Your task to perform on an android device: turn off translation in the chrome app Image 0: 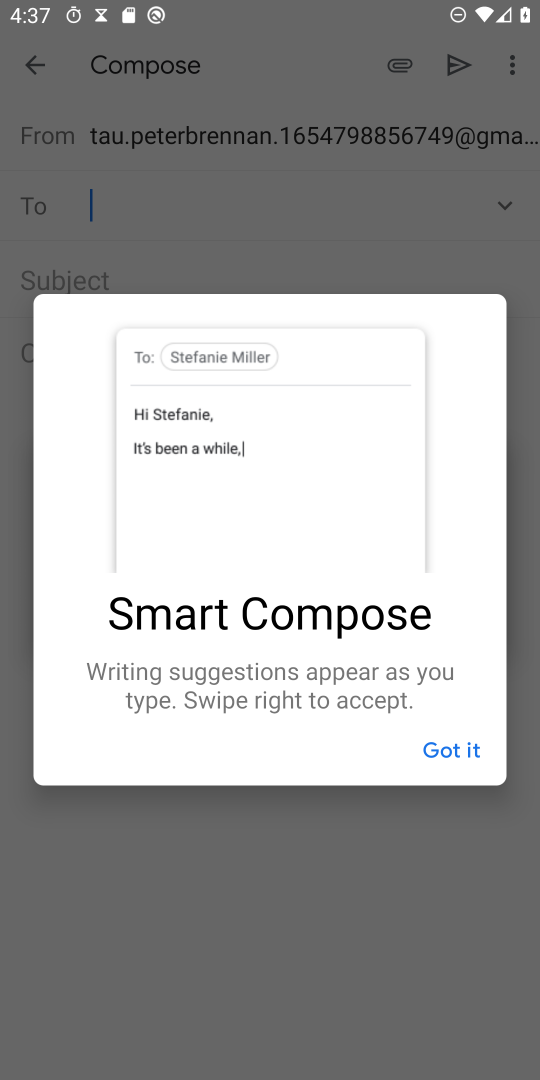
Step 0: press home button
Your task to perform on an android device: turn off translation in the chrome app Image 1: 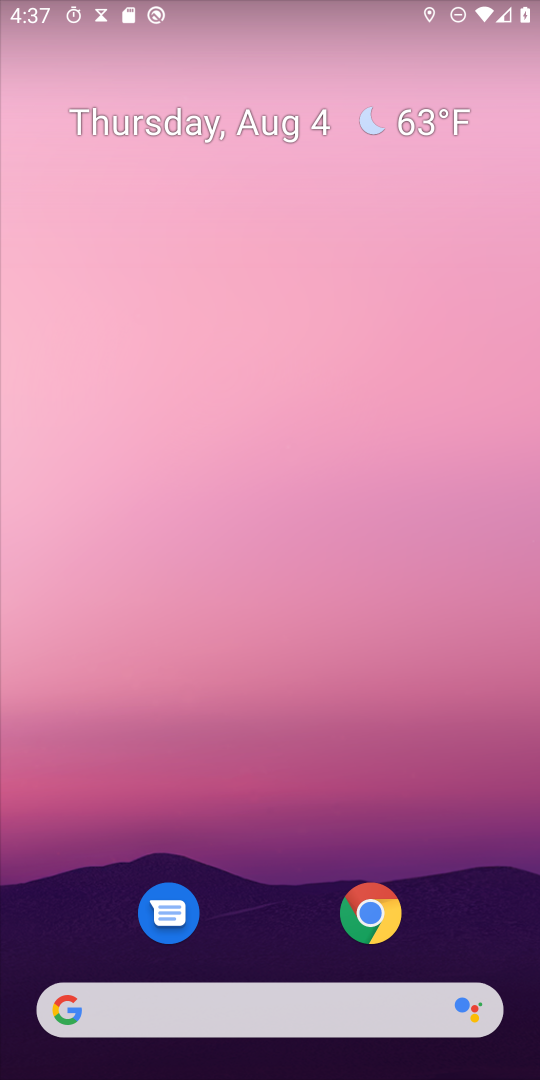
Step 1: drag from (277, 1007) to (531, 7)
Your task to perform on an android device: turn off translation in the chrome app Image 2: 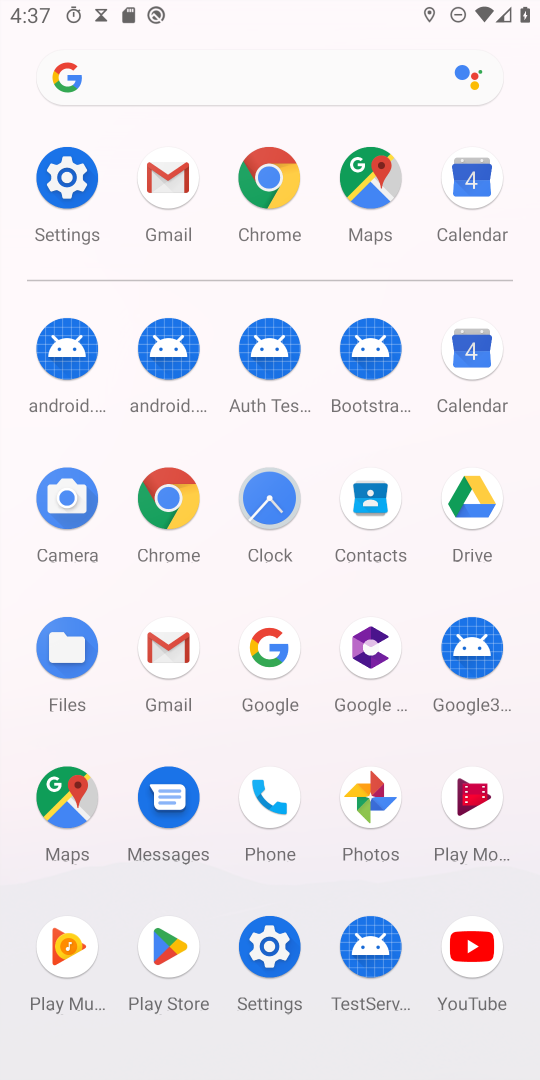
Step 2: click (173, 500)
Your task to perform on an android device: turn off translation in the chrome app Image 3: 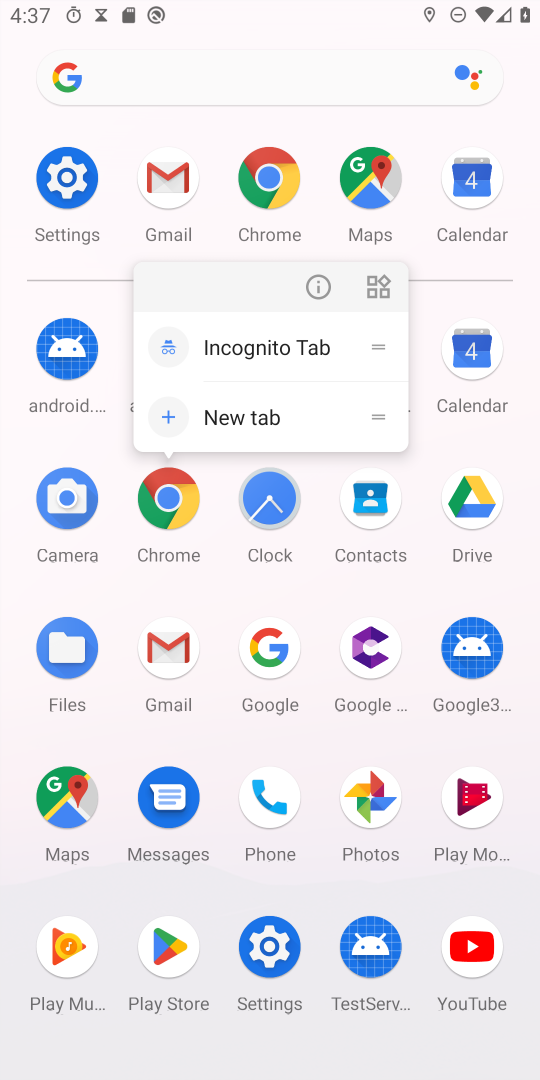
Step 3: click (170, 512)
Your task to perform on an android device: turn off translation in the chrome app Image 4: 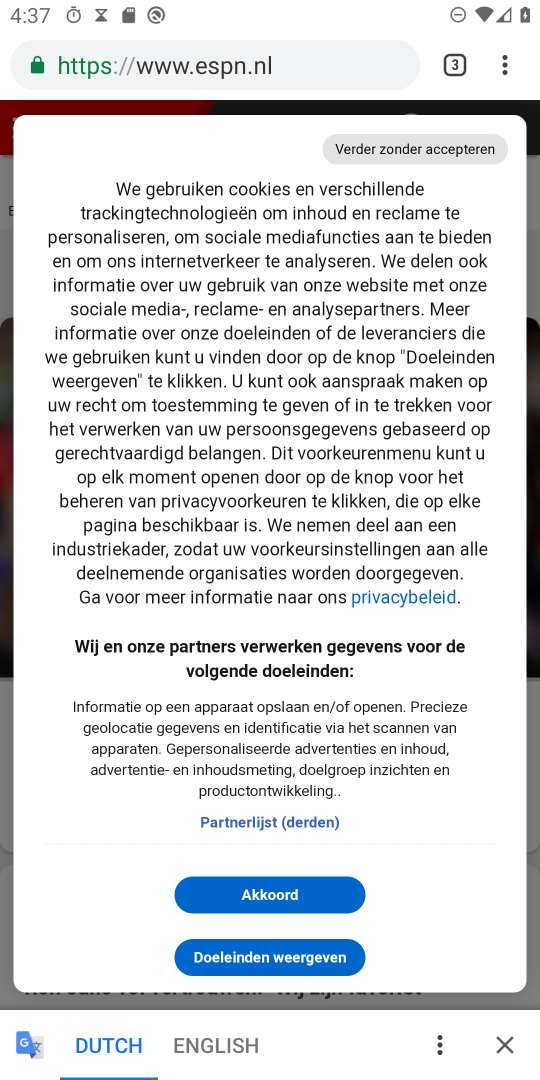
Step 4: drag from (509, 58) to (280, 737)
Your task to perform on an android device: turn off translation in the chrome app Image 5: 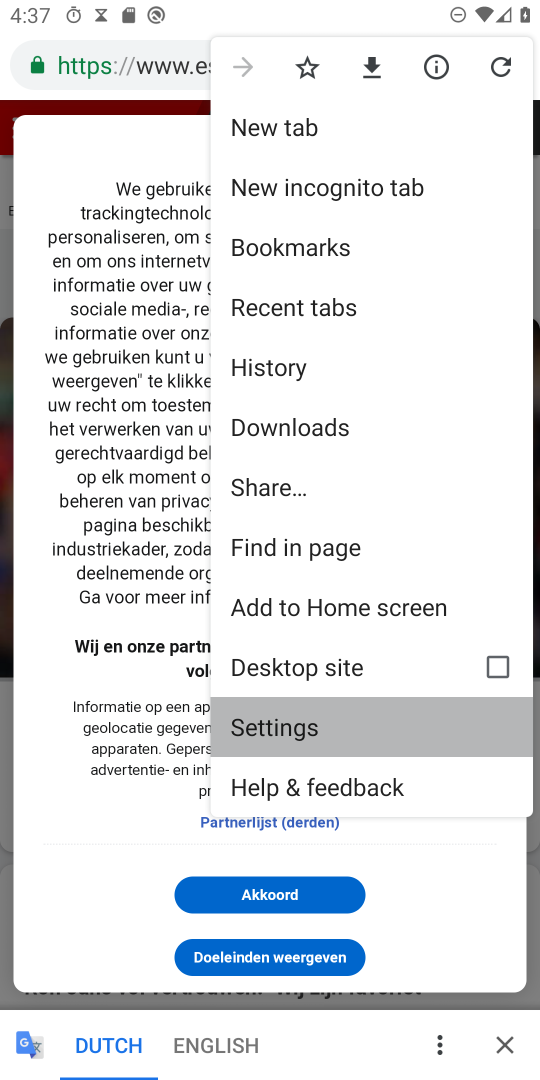
Step 5: click (280, 737)
Your task to perform on an android device: turn off translation in the chrome app Image 6: 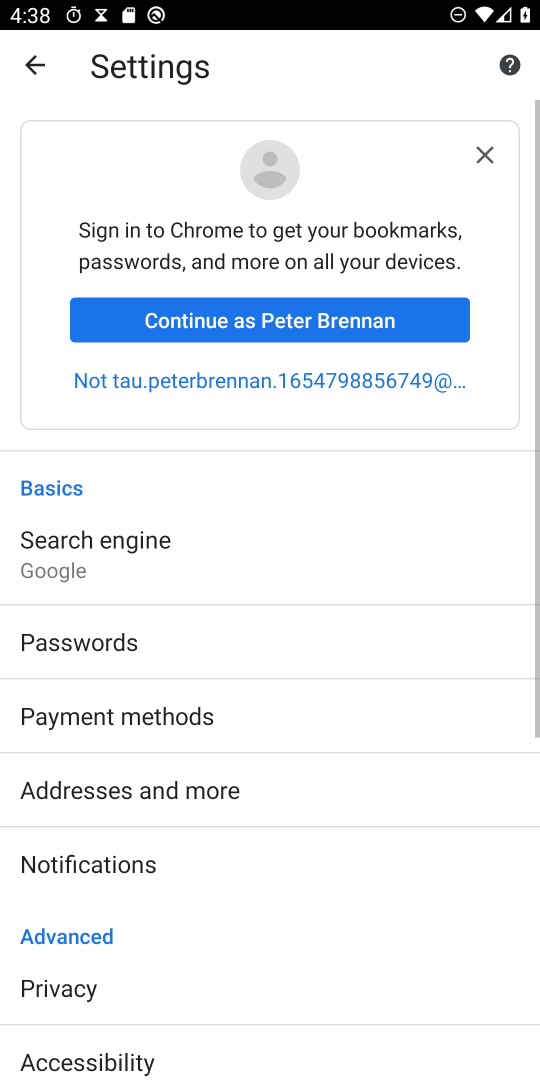
Step 6: drag from (154, 903) to (181, 12)
Your task to perform on an android device: turn off translation in the chrome app Image 7: 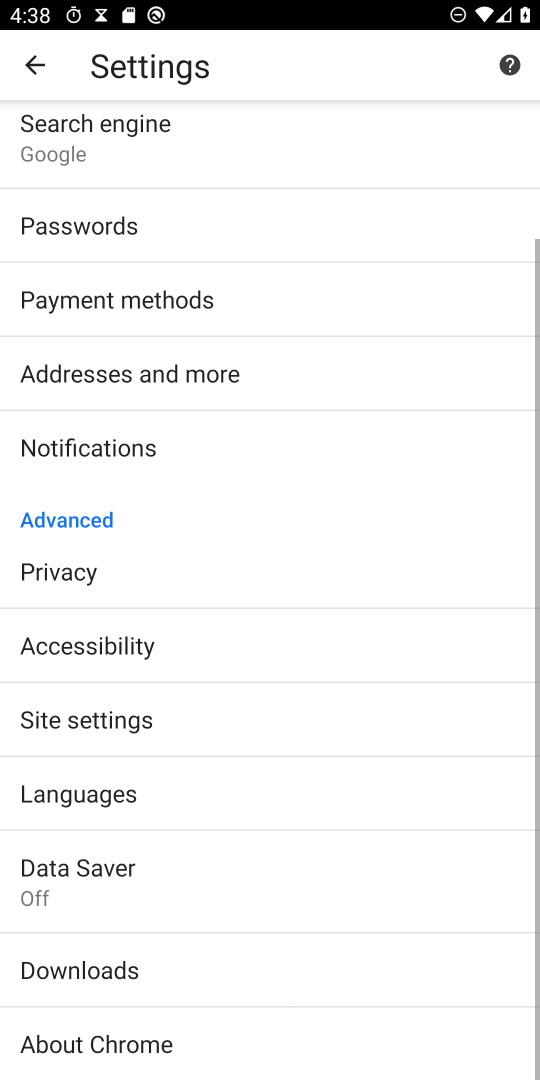
Step 7: click (95, 812)
Your task to perform on an android device: turn off translation in the chrome app Image 8: 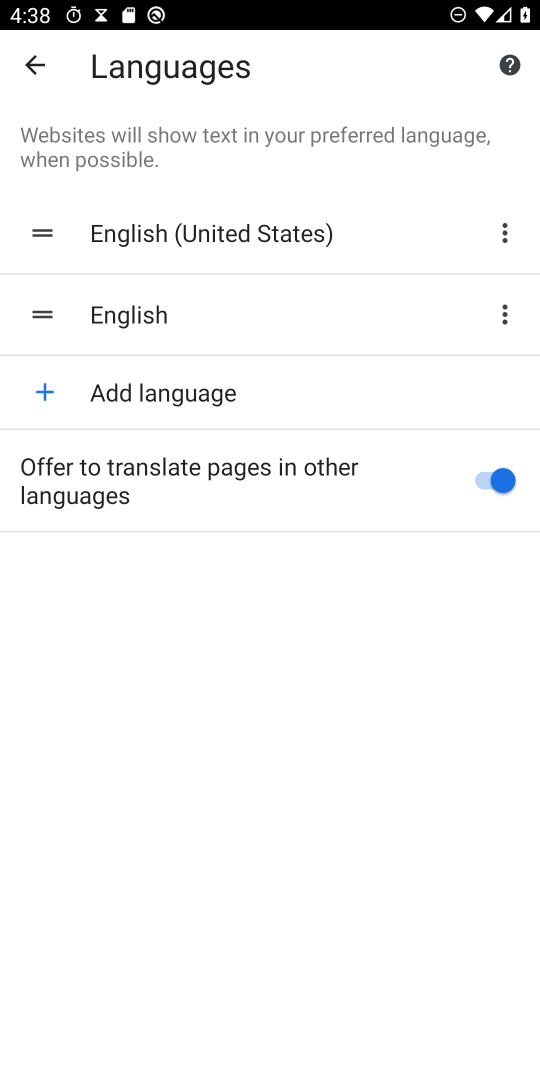
Step 8: click (491, 481)
Your task to perform on an android device: turn off translation in the chrome app Image 9: 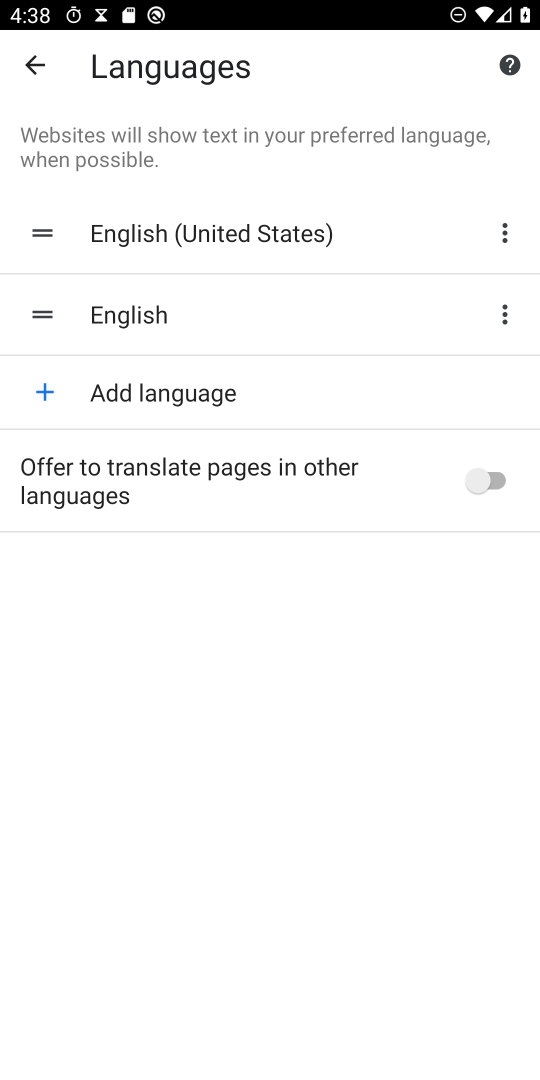
Step 9: task complete